Your task to perform on an android device: turn on javascript in the chrome app Image 0: 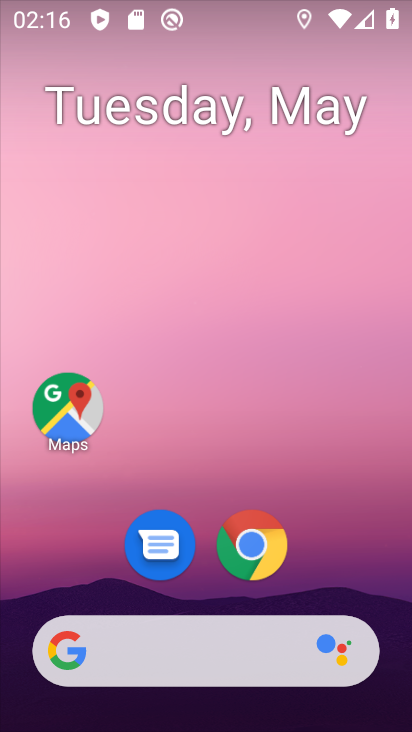
Step 0: click (262, 540)
Your task to perform on an android device: turn on javascript in the chrome app Image 1: 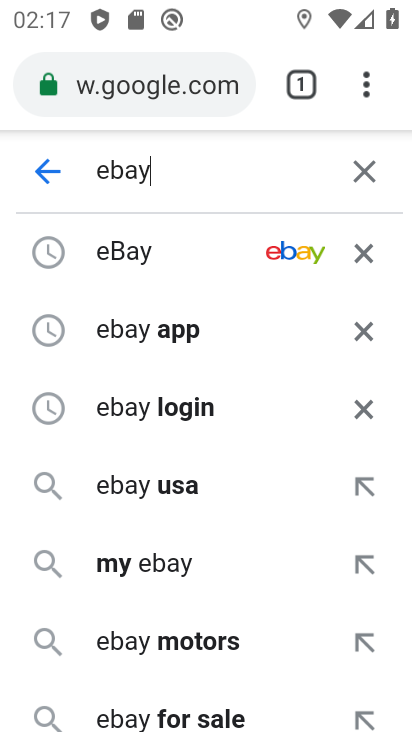
Step 1: click (369, 89)
Your task to perform on an android device: turn on javascript in the chrome app Image 2: 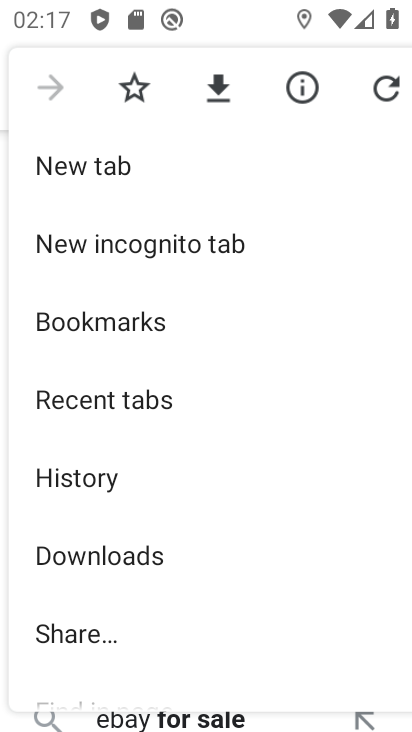
Step 2: drag from (177, 561) to (215, 252)
Your task to perform on an android device: turn on javascript in the chrome app Image 3: 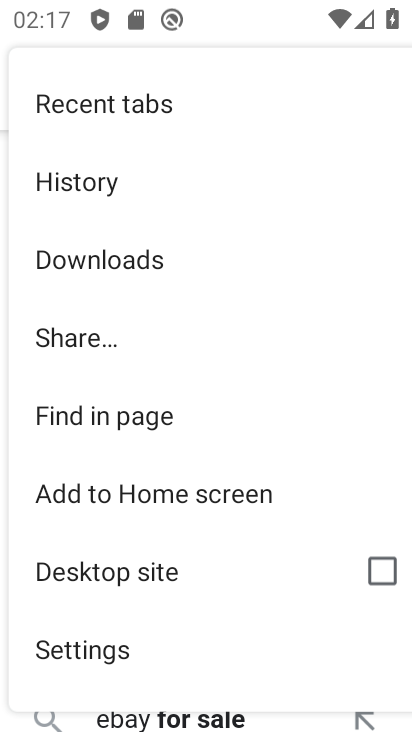
Step 3: click (136, 651)
Your task to perform on an android device: turn on javascript in the chrome app Image 4: 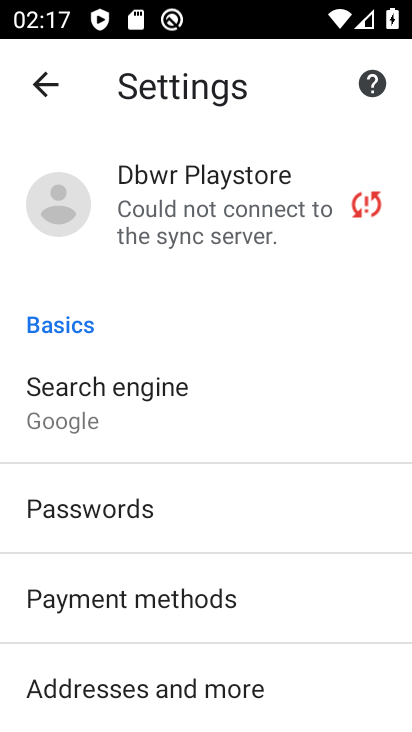
Step 4: drag from (193, 669) to (220, 228)
Your task to perform on an android device: turn on javascript in the chrome app Image 5: 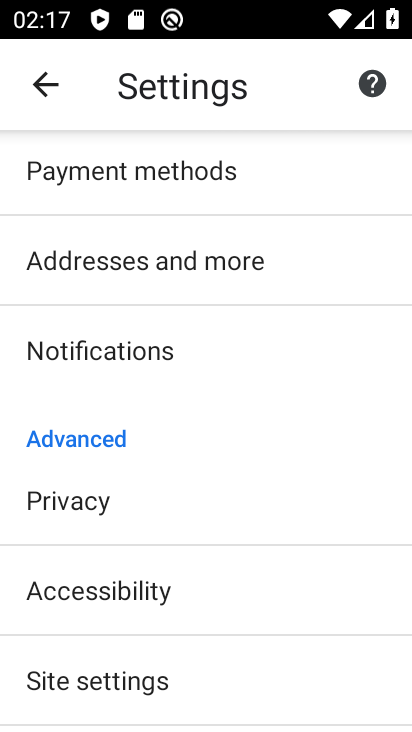
Step 5: click (151, 682)
Your task to perform on an android device: turn on javascript in the chrome app Image 6: 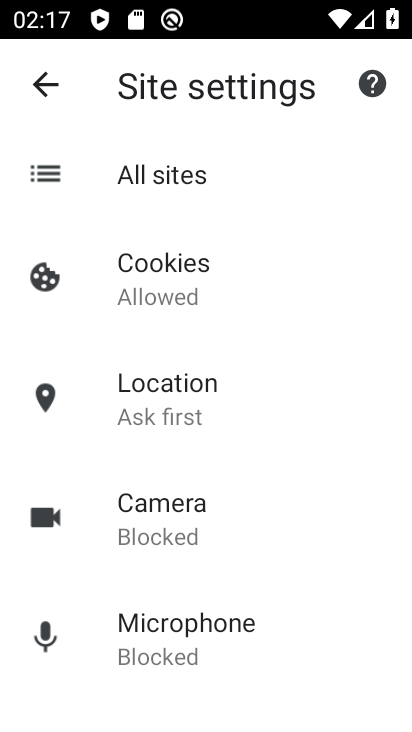
Step 6: drag from (241, 653) to (269, 121)
Your task to perform on an android device: turn on javascript in the chrome app Image 7: 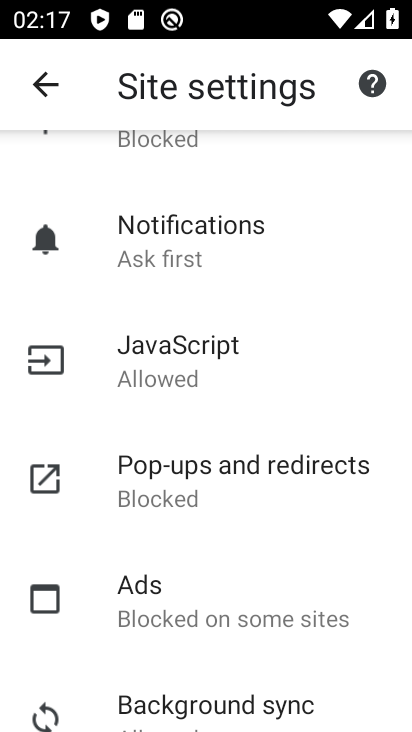
Step 7: click (194, 357)
Your task to perform on an android device: turn on javascript in the chrome app Image 8: 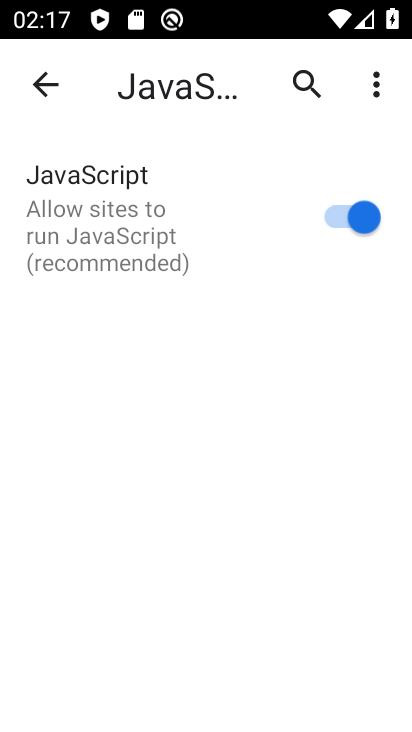
Step 8: task complete